Your task to perform on an android device: Search for pizza restaurants on Maps Image 0: 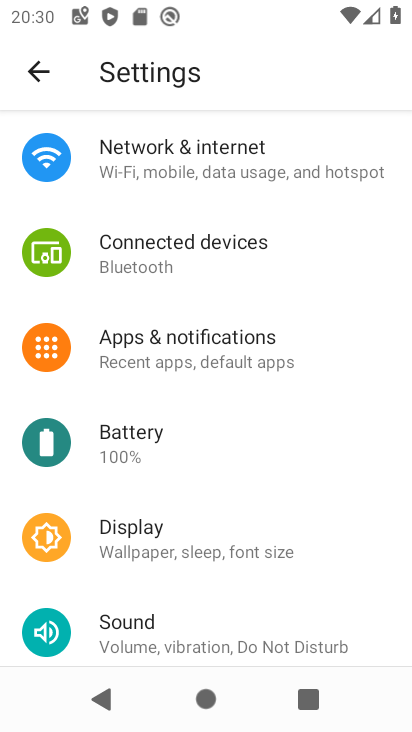
Step 0: press home button
Your task to perform on an android device: Search for pizza restaurants on Maps Image 1: 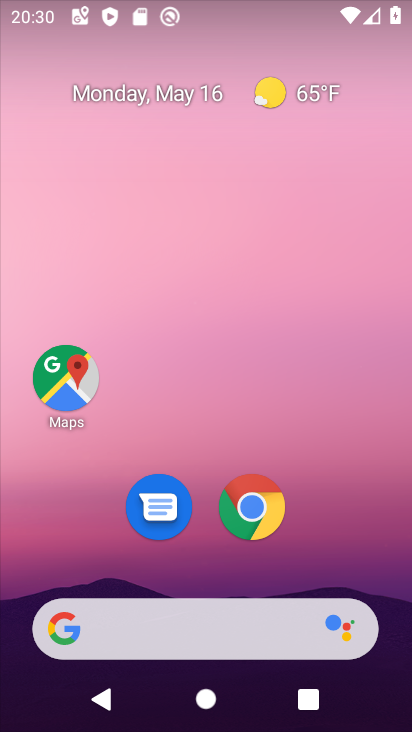
Step 1: drag from (192, 581) to (250, 13)
Your task to perform on an android device: Search for pizza restaurants on Maps Image 2: 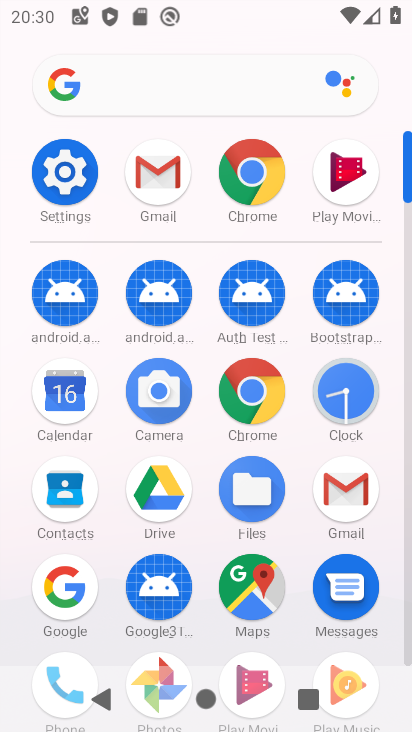
Step 2: click (244, 593)
Your task to perform on an android device: Search for pizza restaurants on Maps Image 3: 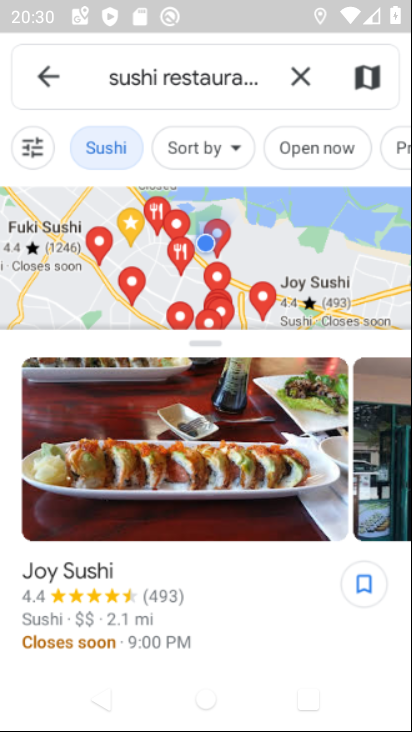
Step 3: click (58, 68)
Your task to perform on an android device: Search for pizza restaurants on Maps Image 4: 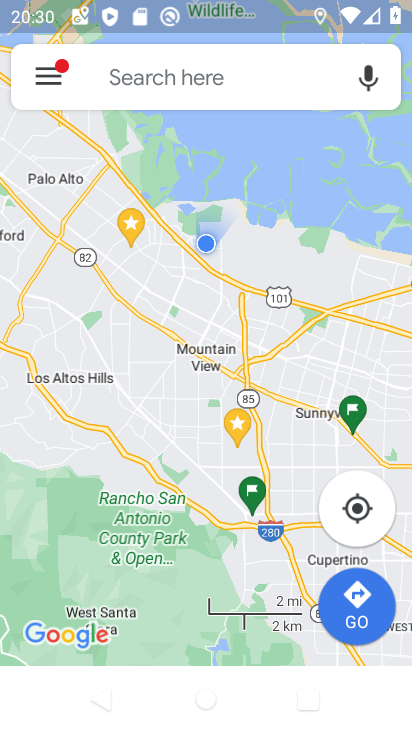
Step 4: click (188, 84)
Your task to perform on an android device: Search for pizza restaurants on Maps Image 5: 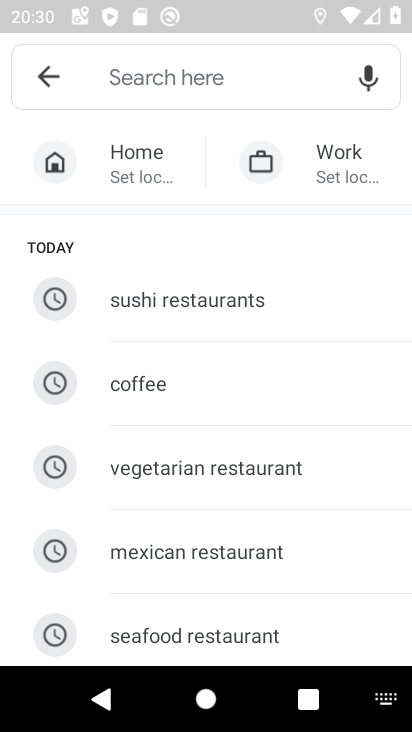
Step 5: drag from (232, 520) to (182, 118)
Your task to perform on an android device: Search for pizza restaurants on Maps Image 6: 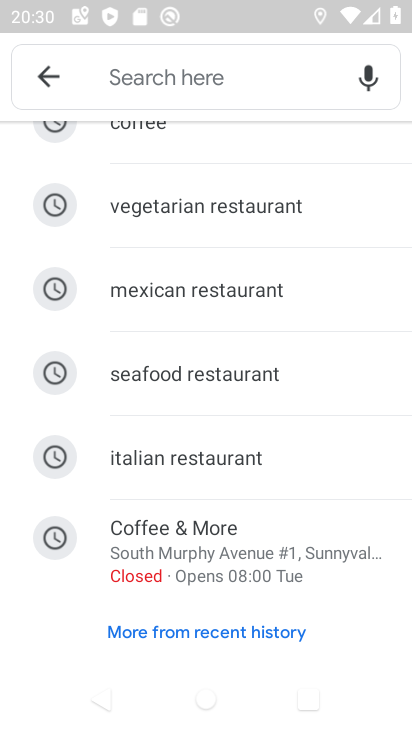
Step 6: click (203, 85)
Your task to perform on an android device: Search for pizza restaurants on Maps Image 7: 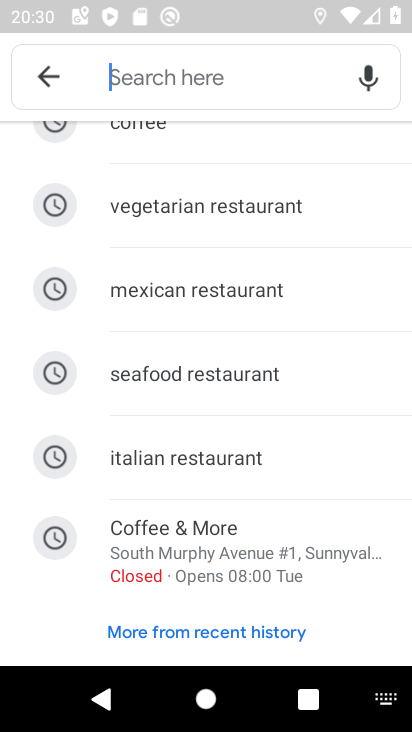
Step 7: type "pizza"
Your task to perform on an android device: Search for pizza restaurants on Maps Image 8: 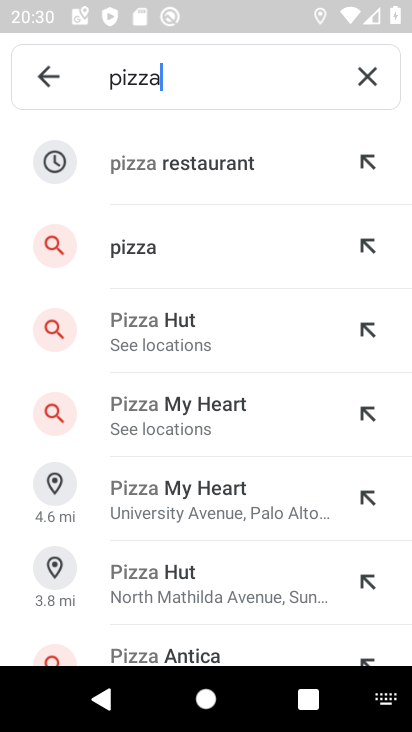
Step 8: click (228, 153)
Your task to perform on an android device: Search for pizza restaurants on Maps Image 9: 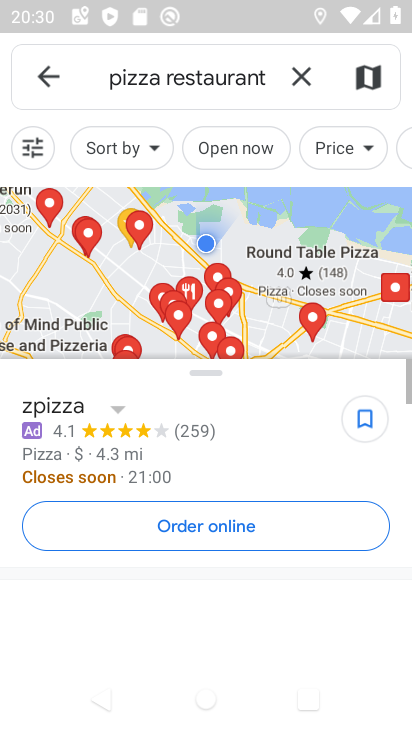
Step 9: task complete